Your task to perform on an android device: Open Chrome and go to settings Image 0: 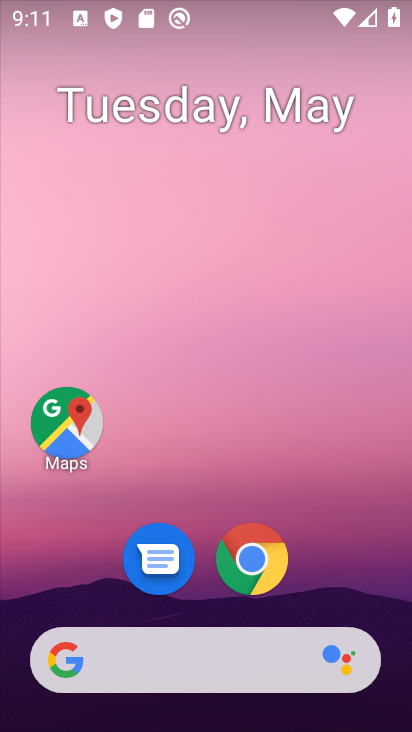
Step 0: drag from (157, 670) to (225, 162)
Your task to perform on an android device: Open Chrome and go to settings Image 1: 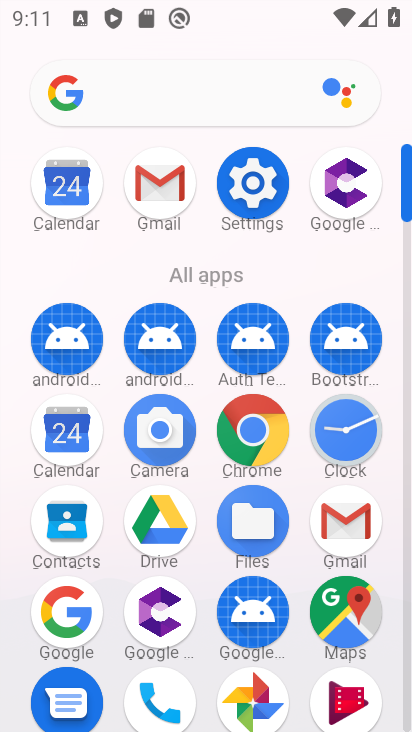
Step 1: click (259, 439)
Your task to perform on an android device: Open Chrome and go to settings Image 2: 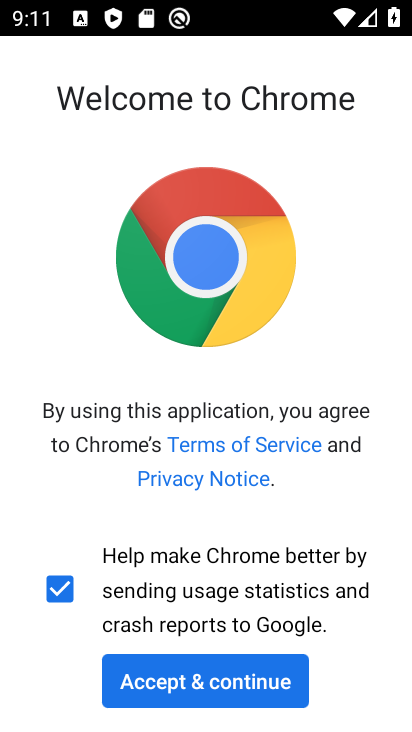
Step 2: click (212, 680)
Your task to perform on an android device: Open Chrome and go to settings Image 3: 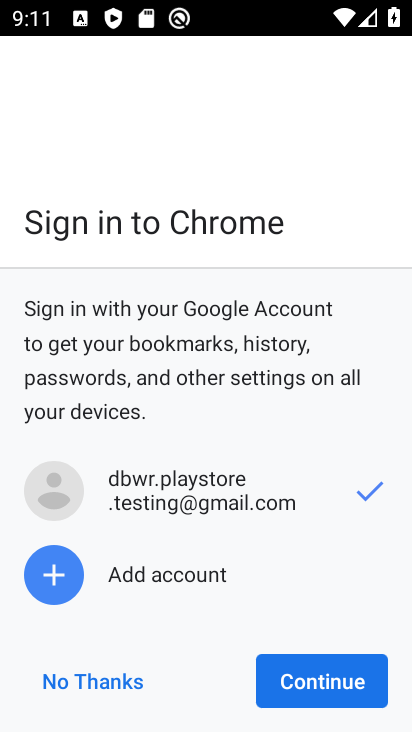
Step 3: click (282, 671)
Your task to perform on an android device: Open Chrome and go to settings Image 4: 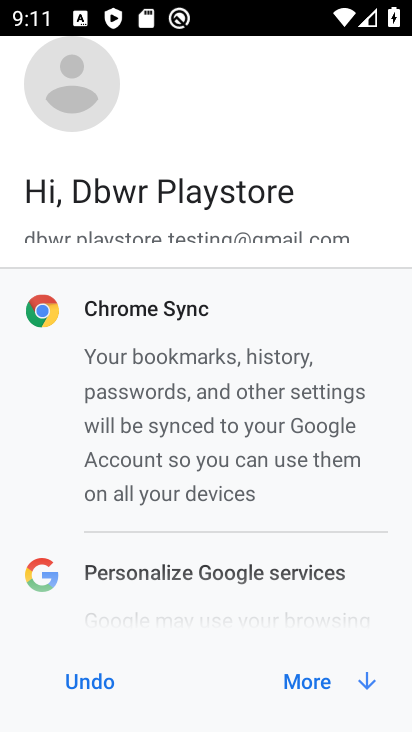
Step 4: click (318, 691)
Your task to perform on an android device: Open Chrome and go to settings Image 5: 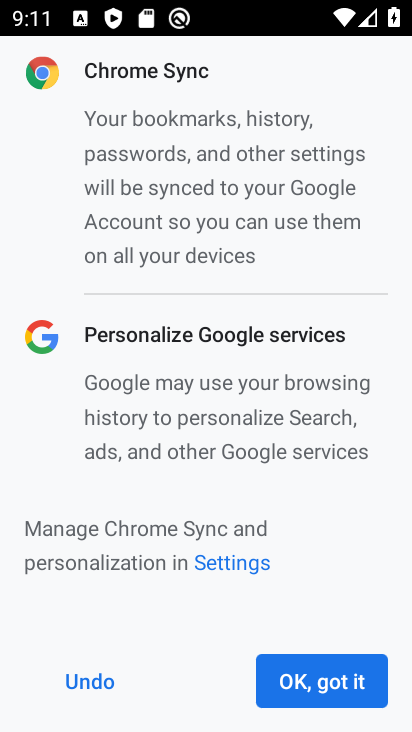
Step 5: click (318, 691)
Your task to perform on an android device: Open Chrome and go to settings Image 6: 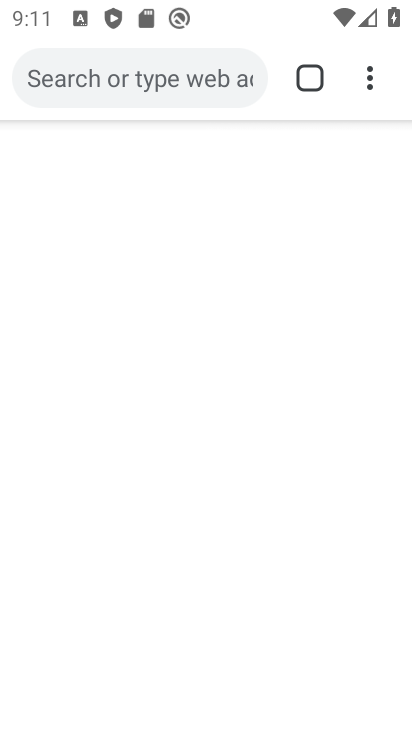
Step 6: click (318, 691)
Your task to perform on an android device: Open Chrome and go to settings Image 7: 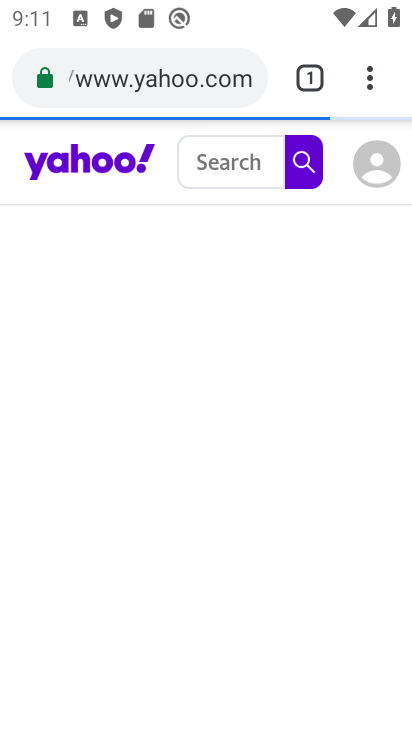
Step 7: click (306, 689)
Your task to perform on an android device: Open Chrome and go to settings Image 8: 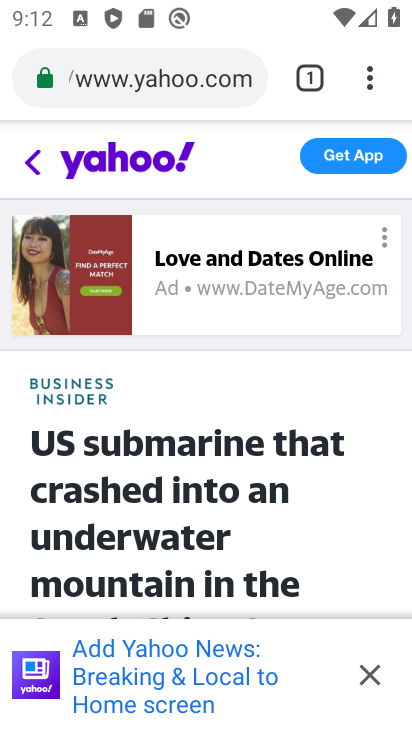
Step 8: press home button
Your task to perform on an android device: Open Chrome and go to settings Image 9: 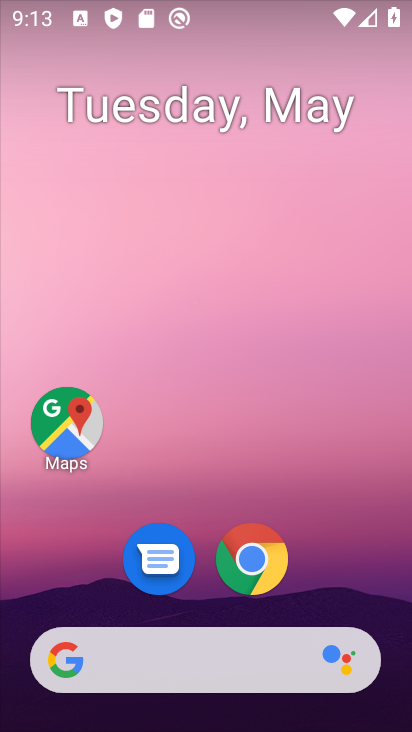
Step 9: click (227, 545)
Your task to perform on an android device: Open Chrome and go to settings Image 10: 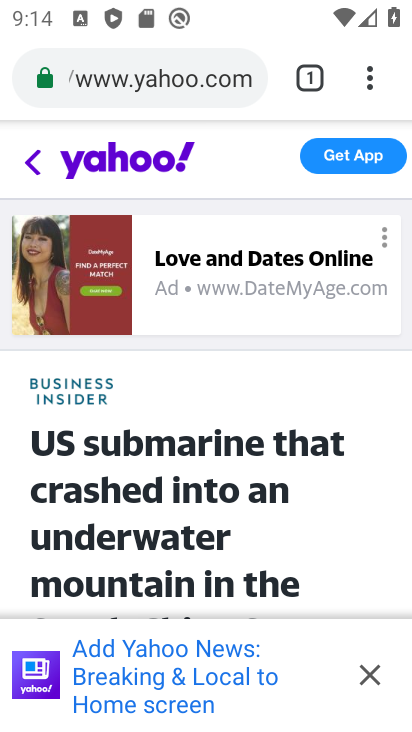
Step 10: press home button
Your task to perform on an android device: Open Chrome and go to settings Image 11: 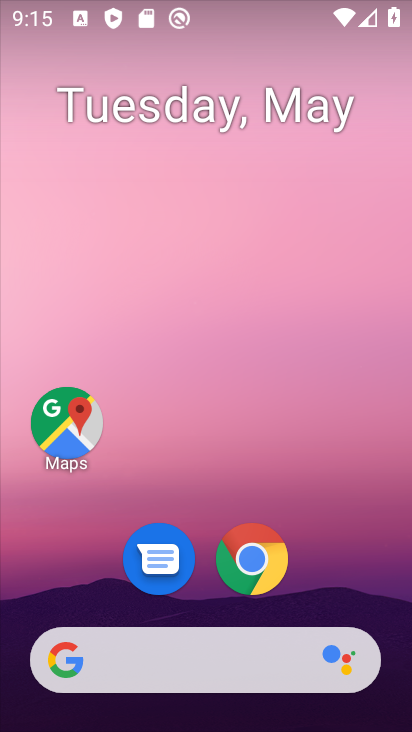
Step 11: click (228, 578)
Your task to perform on an android device: Open Chrome and go to settings Image 12: 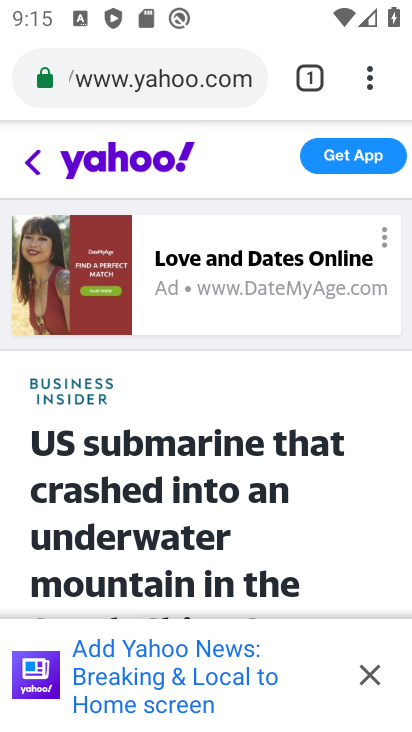
Step 12: click (369, 48)
Your task to perform on an android device: Open Chrome and go to settings Image 13: 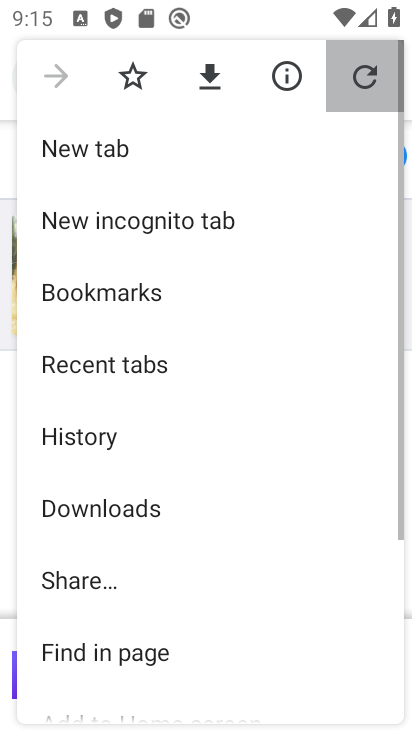
Step 13: drag from (369, 48) to (304, 373)
Your task to perform on an android device: Open Chrome and go to settings Image 14: 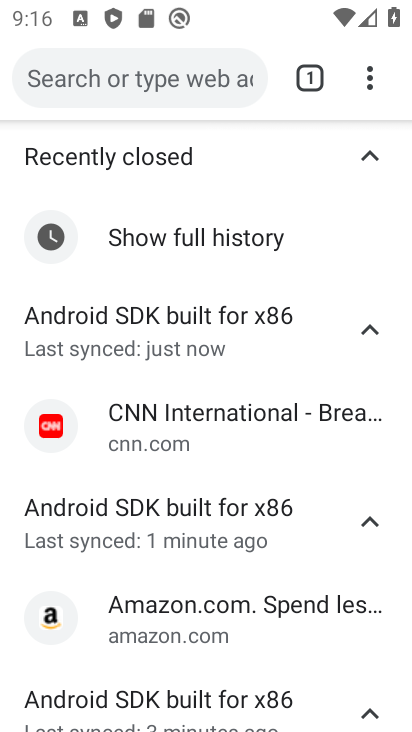
Step 14: click (379, 237)
Your task to perform on an android device: Open Chrome and go to settings Image 15: 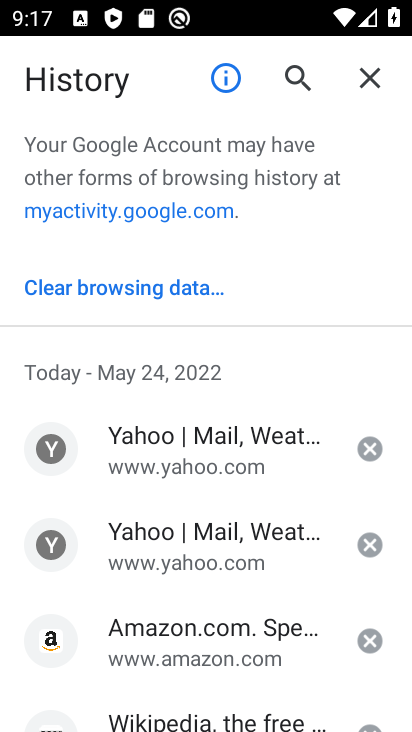
Step 15: task complete